Your task to perform on an android device: Open ESPN.com Image 0: 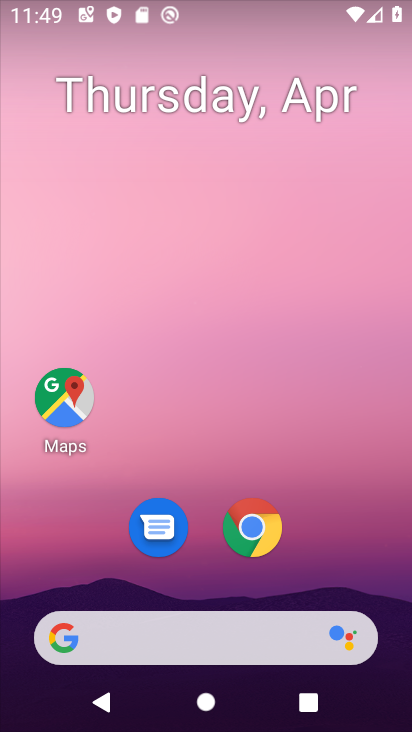
Step 0: click (165, 624)
Your task to perform on an android device: Open ESPN.com Image 1: 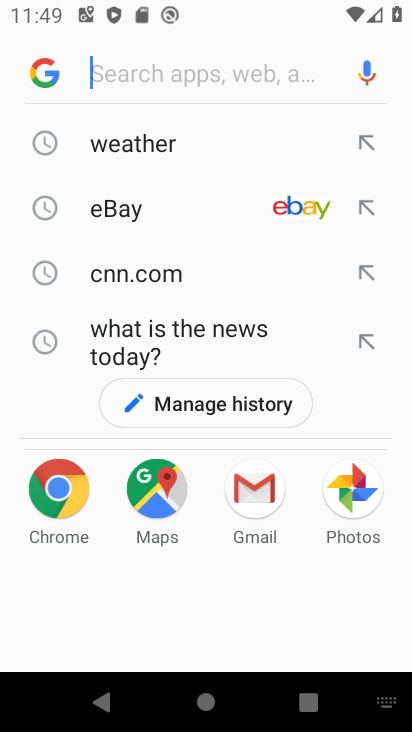
Step 1: type "ESPN.com"
Your task to perform on an android device: Open ESPN.com Image 2: 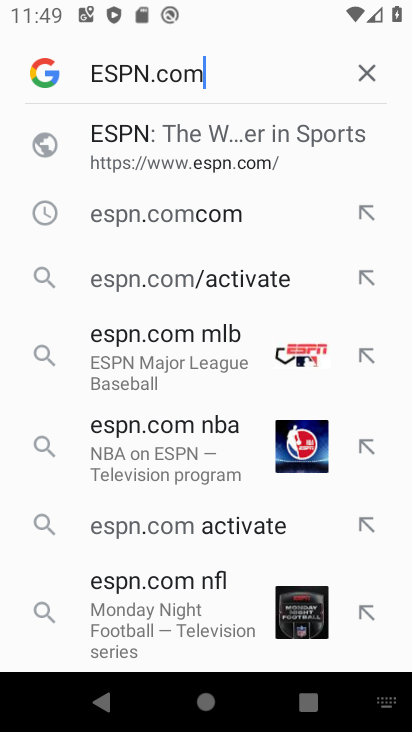
Step 2: click (181, 143)
Your task to perform on an android device: Open ESPN.com Image 3: 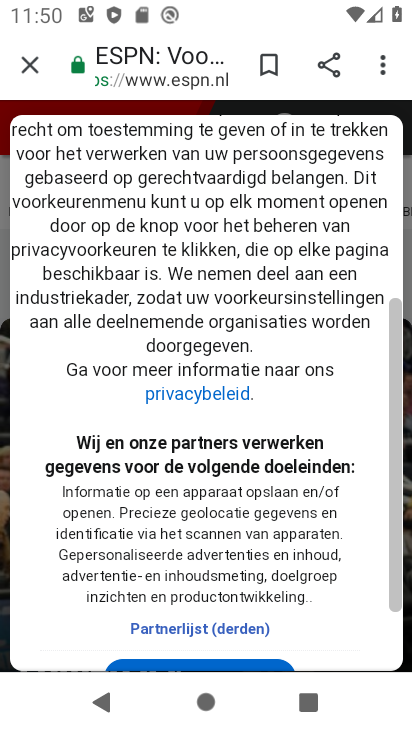
Step 3: task complete